Your task to perform on an android device: Clear the shopping cart on target.com. Search for usb-a to usb-b on target.com, select the first entry, add it to the cart, then select checkout. Image 0: 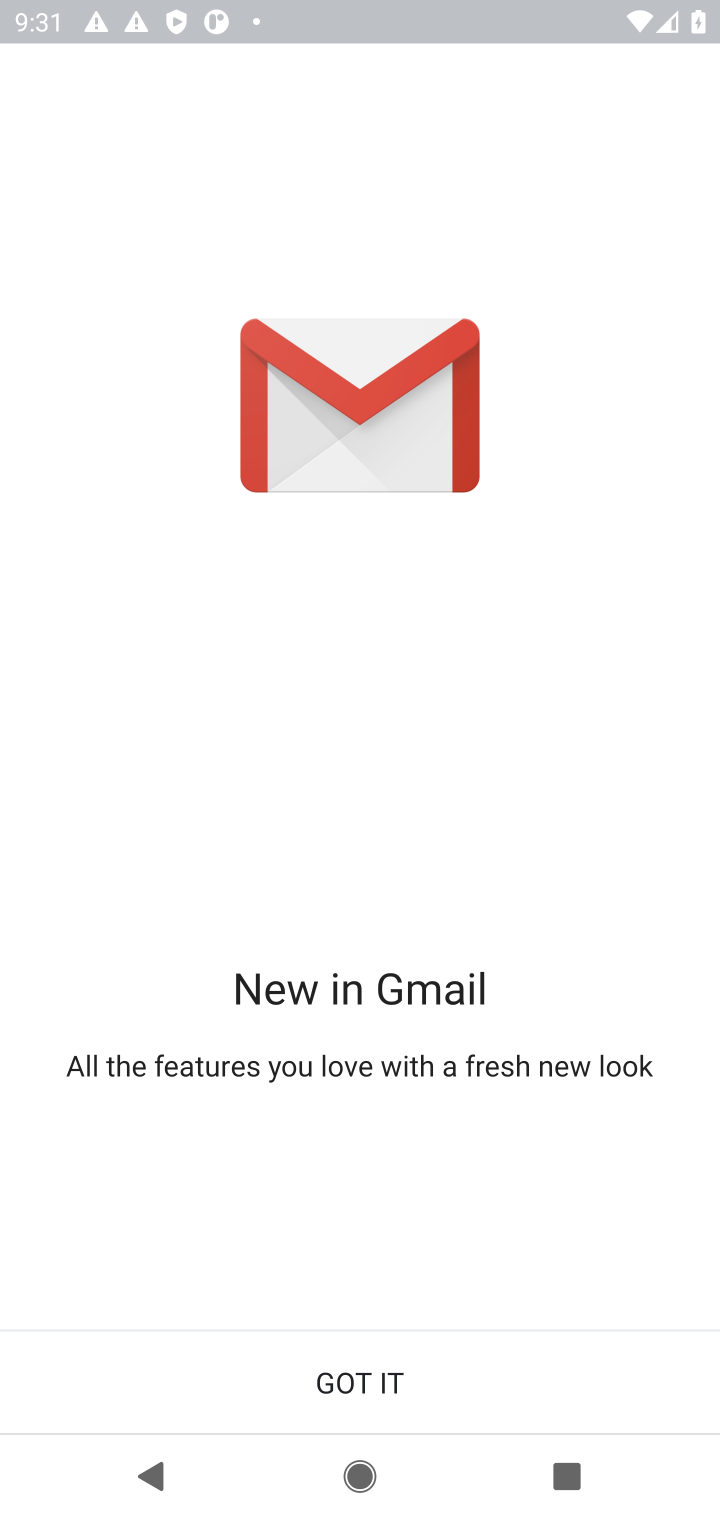
Step 0: press home button
Your task to perform on an android device: Clear the shopping cart on target.com. Search for usb-a to usb-b on target.com, select the first entry, add it to the cart, then select checkout. Image 1: 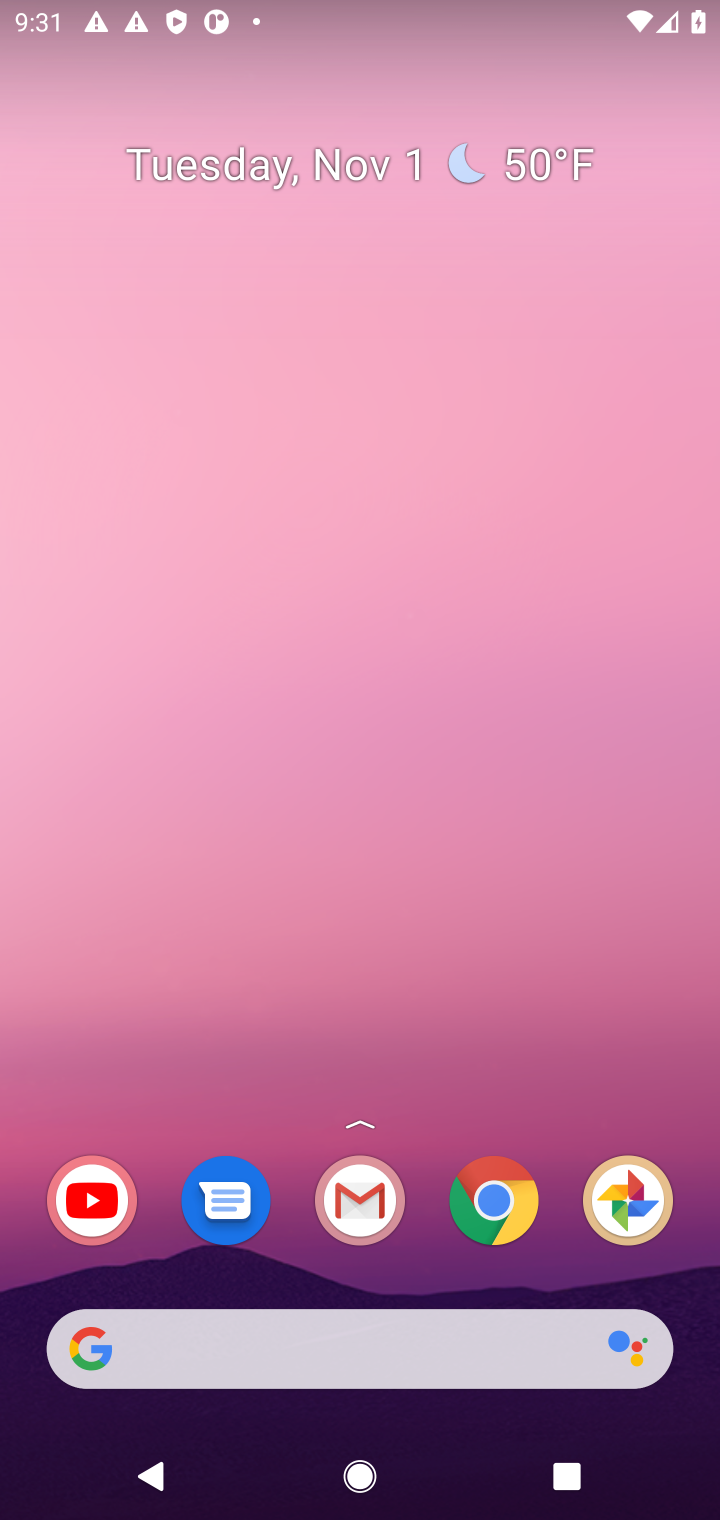
Step 1: click (369, 1335)
Your task to perform on an android device: Clear the shopping cart on target.com. Search for usb-a to usb-b on target.com, select the first entry, add it to the cart, then select checkout. Image 2: 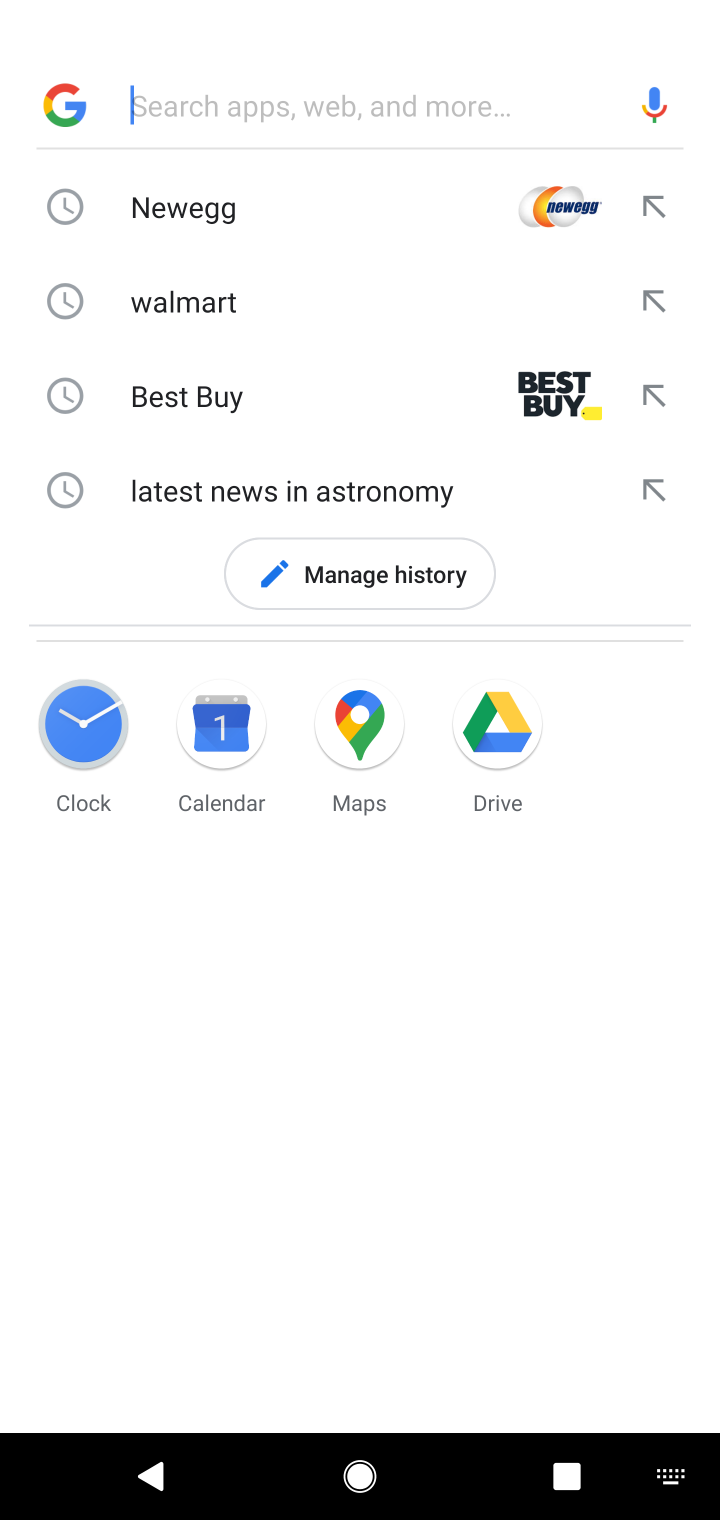
Step 2: type "target.com"
Your task to perform on an android device: Clear the shopping cart on target.com. Search for usb-a to usb-b on target.com, select the first entry, add it to the cart, then select checkout. Image 3: 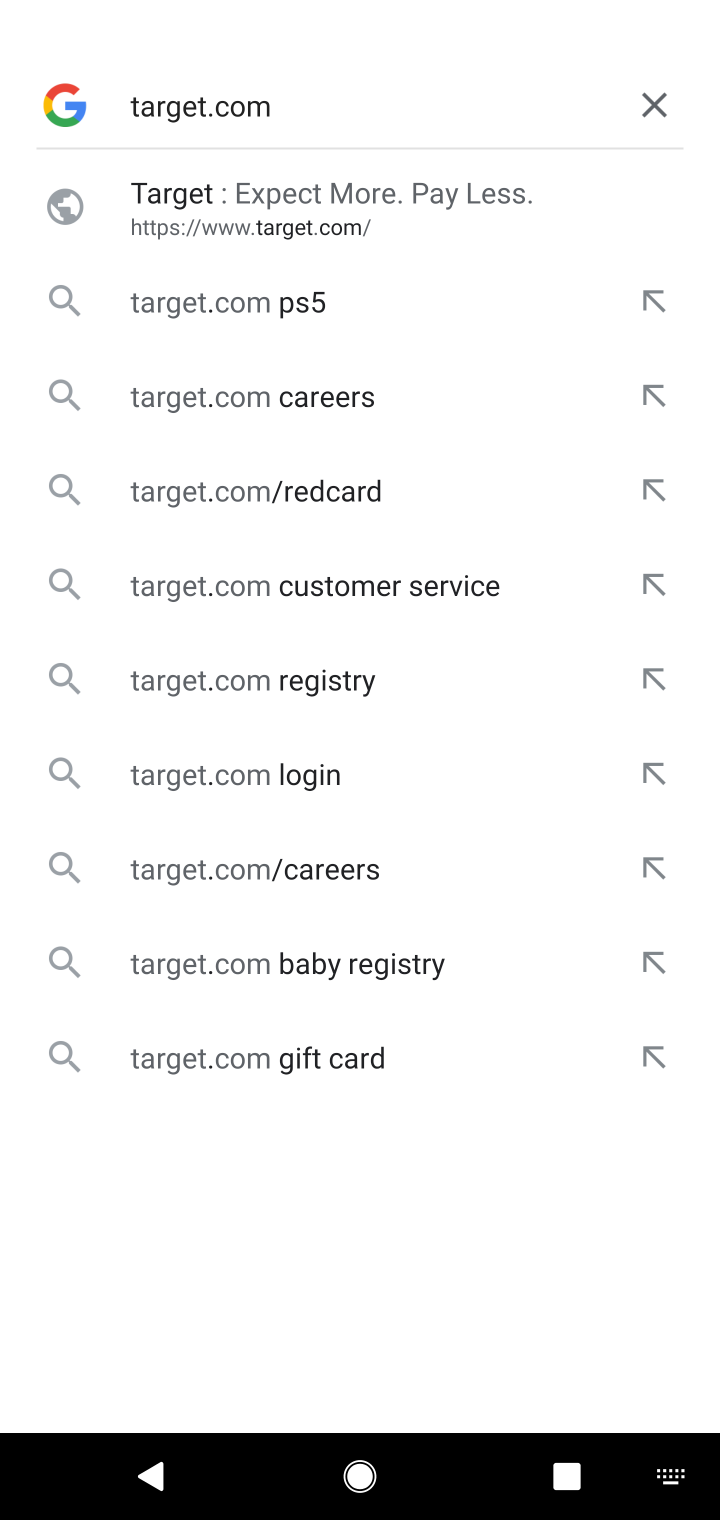
Step 3: type ""
Your task to perform on an android device: Clear the shopping cart on target.com. Search for usb-a to usb-b on target.com, select the first entry, add it to the cart, then select checkout. Image 4: 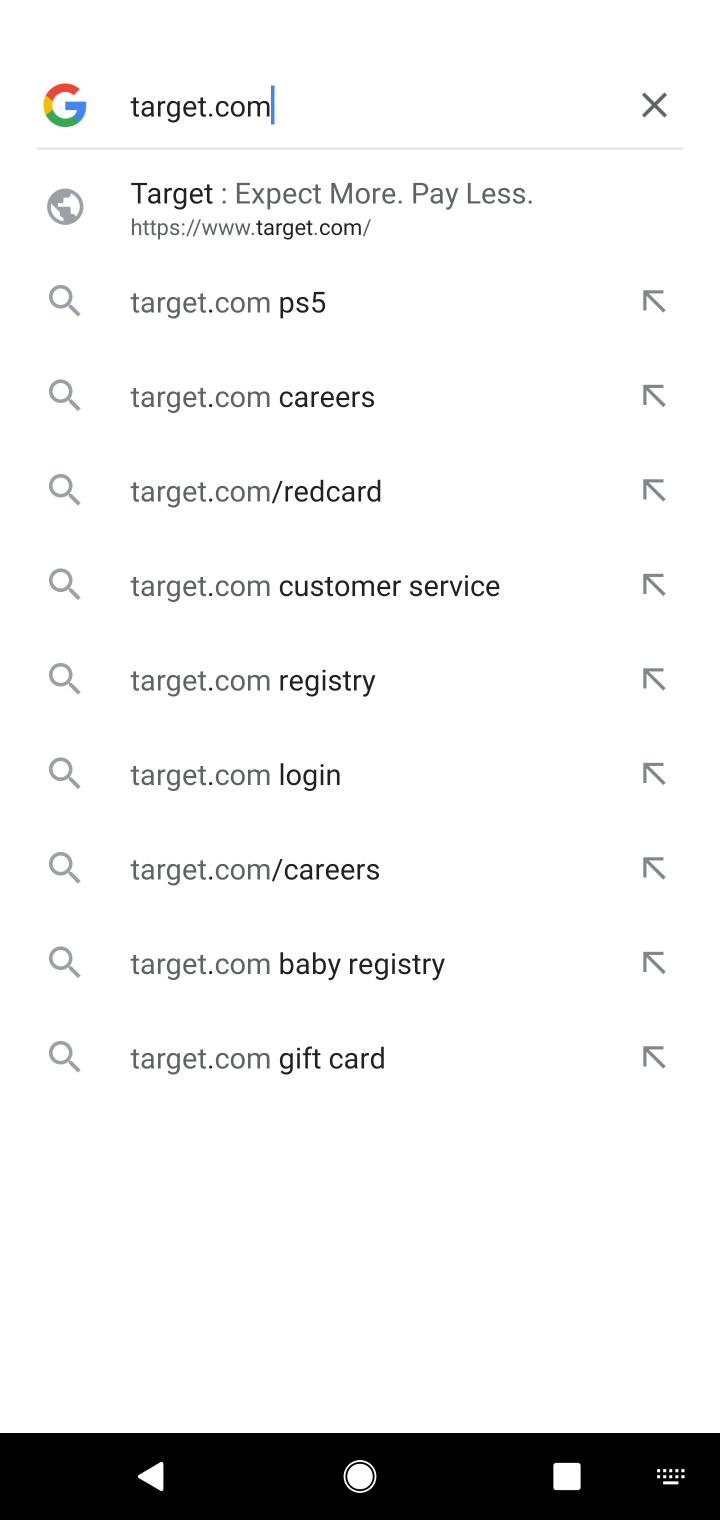
Step 4: click (221, 216)
Your task to perform on an android device: Clear the shopping cart on target.com. Search for usb-a to usb-b on target.com, select the first entry, add it to the cart, then select checkout. Image 5: 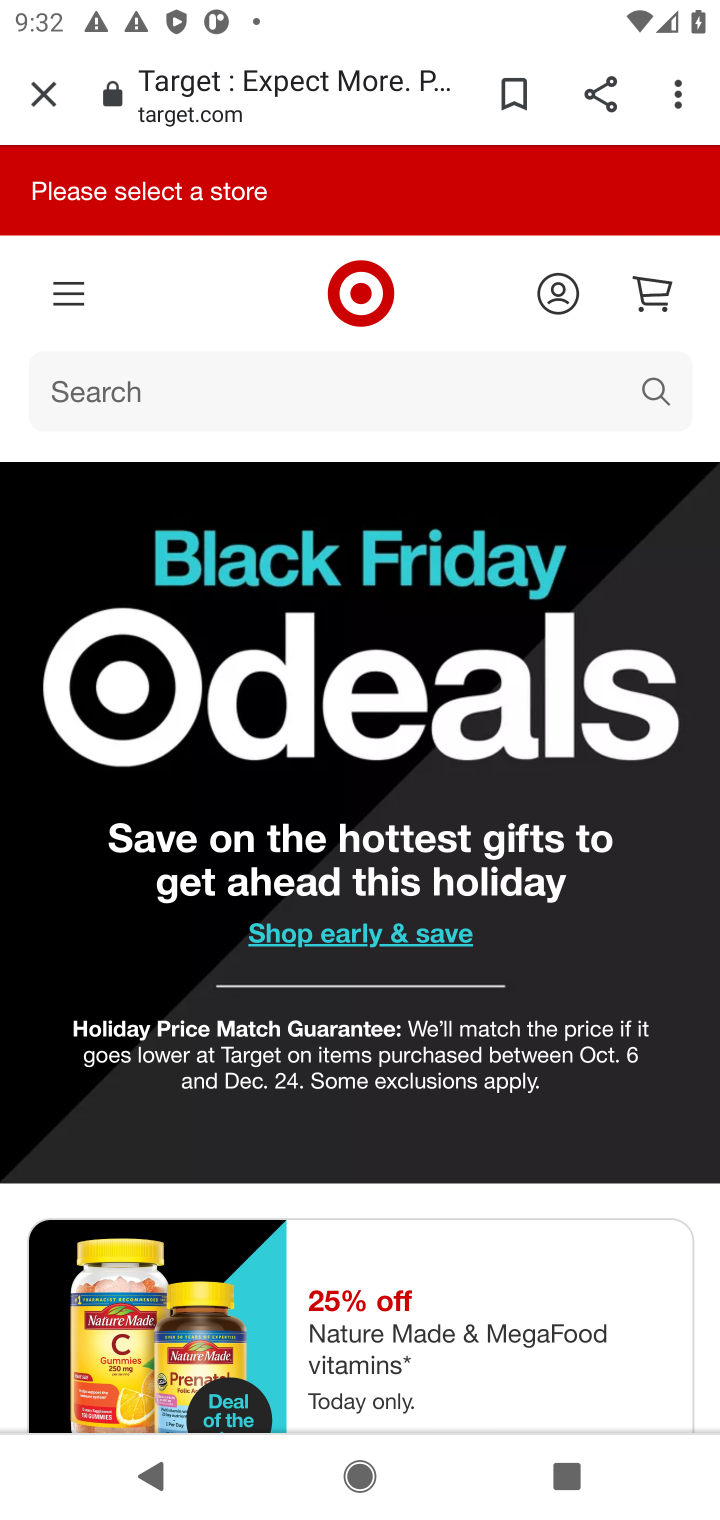
Step 5: click (312, 372)
Your task to perform on an android device: Clear the shopping cart on target.com. Search for usb-a to usb-b on target.com, select the first entry, add it to the cart, then select checkout. Image 6: 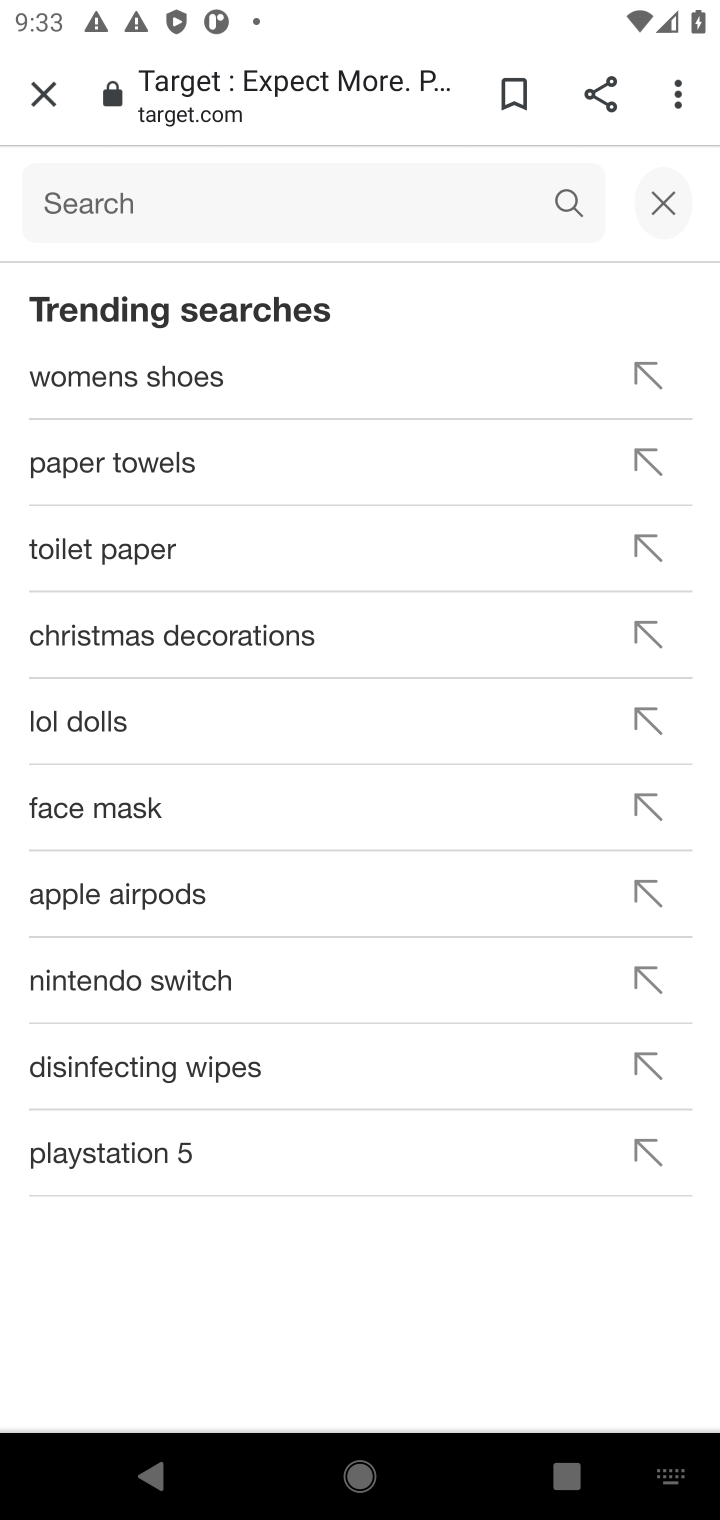
Step 6: type "usb-a to usb-b"
Your task to perform on an android device: Clear the shopping cart on target.com. Search for usb-a to usb-b on target.com, select the first entry, add it to the cart, then select checkout. Image 7: 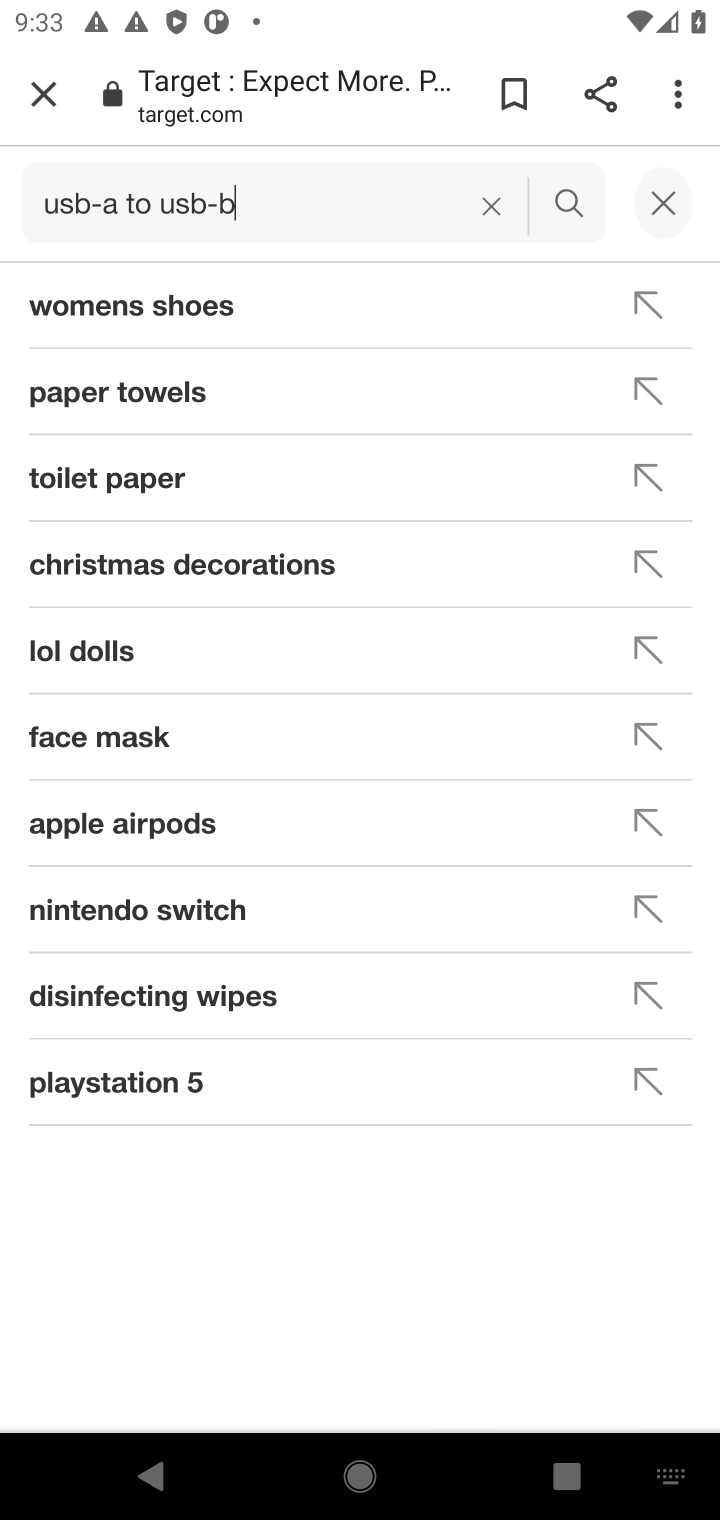
Step 7: type ""
Your task to perform on an android device: Clear the shopping cart on target.com. Search for usb-a to usb-b on target.com, select the first entry, add it to the cart, then select checkout. Image 8: 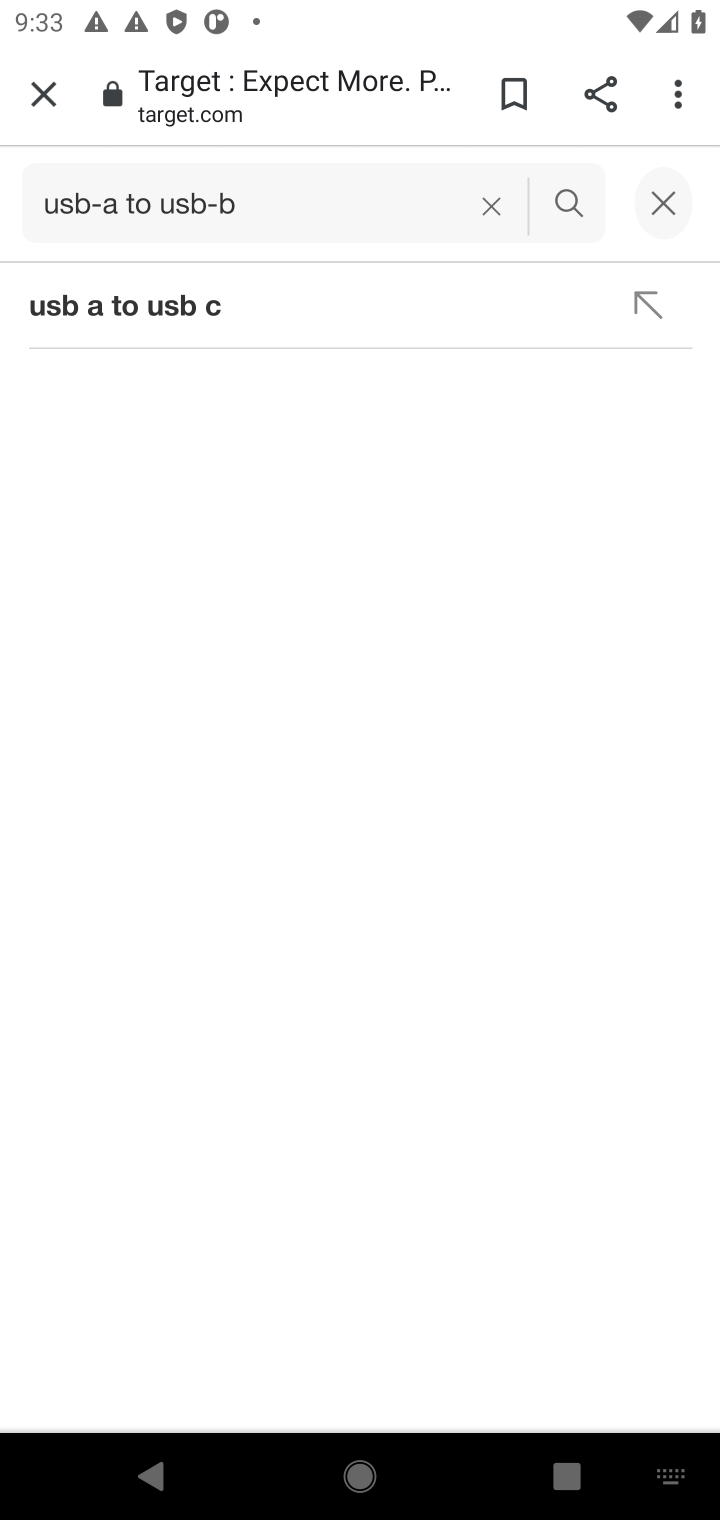
Step 8: click (567, 218)
Your task to perform on an android device: Clear the shopping cart on target.com. Search for usb-a to usb-b on target.com, select the first entry, add it to the cart, then select checkout. Image 9: 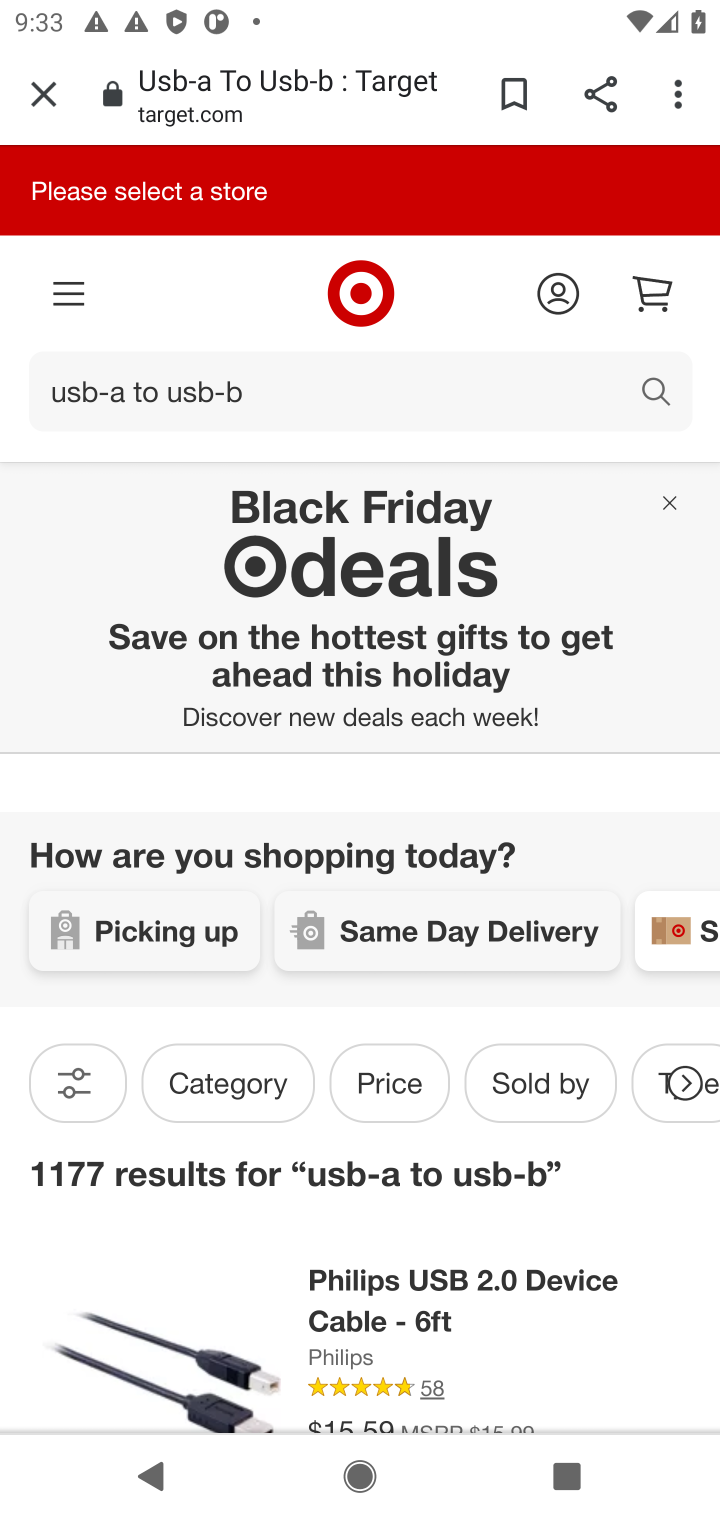
Step 9: click (467, 1291)
Your task to perform on an android device: Clear the shopping cart on target.com. Search for usb-a to usb-b on target.com, select the first entry, add it to the cart, then select checkout. Image 10: 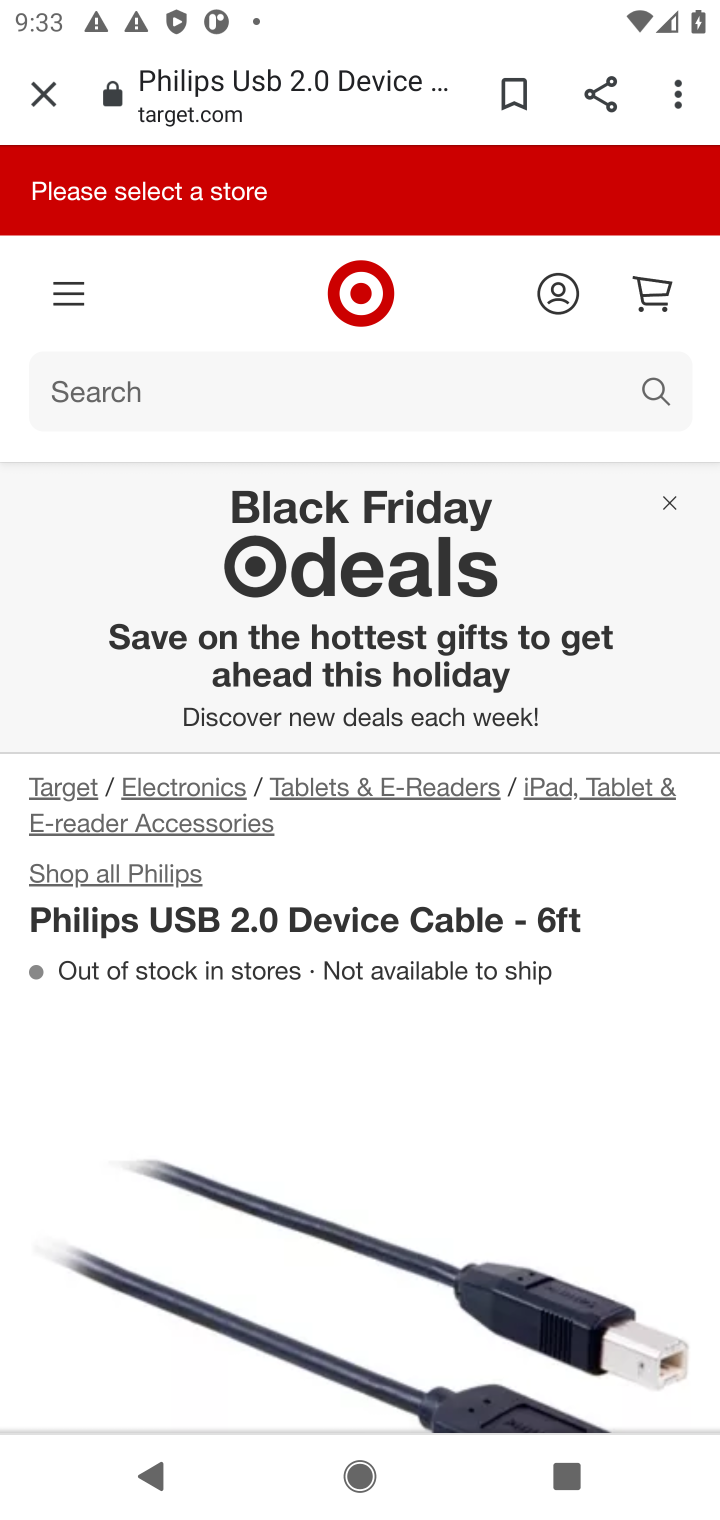
Step 10: drag from (456, 1084) to (491, 336)
Your task to perform on an android device: Clear the shopping cart on target.com. Search for usb-a to usb-b on target.com, select the first entry, add it to the cart, then select checkout. Image 11: 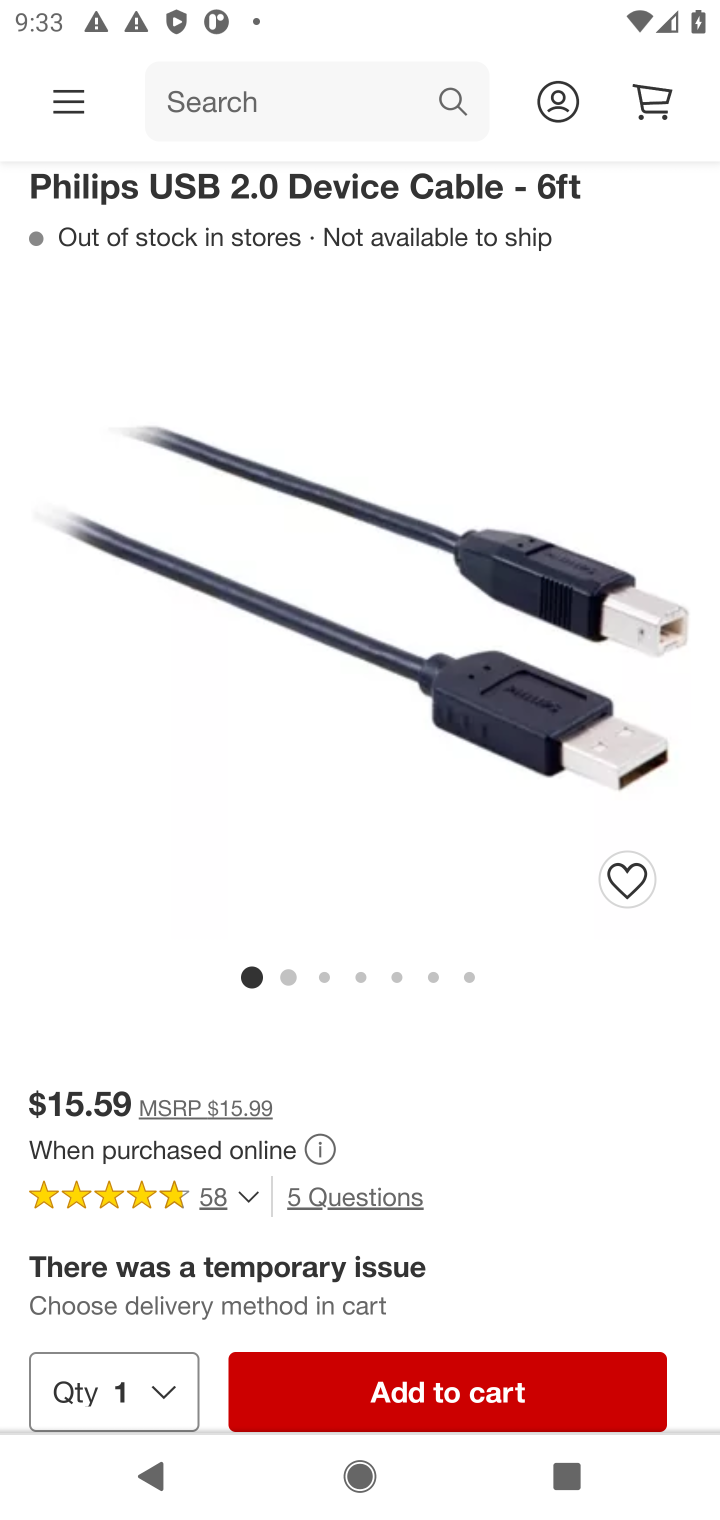
Step 11: click (482, 1369)
Your task to perform on an android device: Clear the shopping cart on target.com. Search for usb-a to usb-b on target.com, select the first entry, add it to the cart, then select checkout. Image 12: 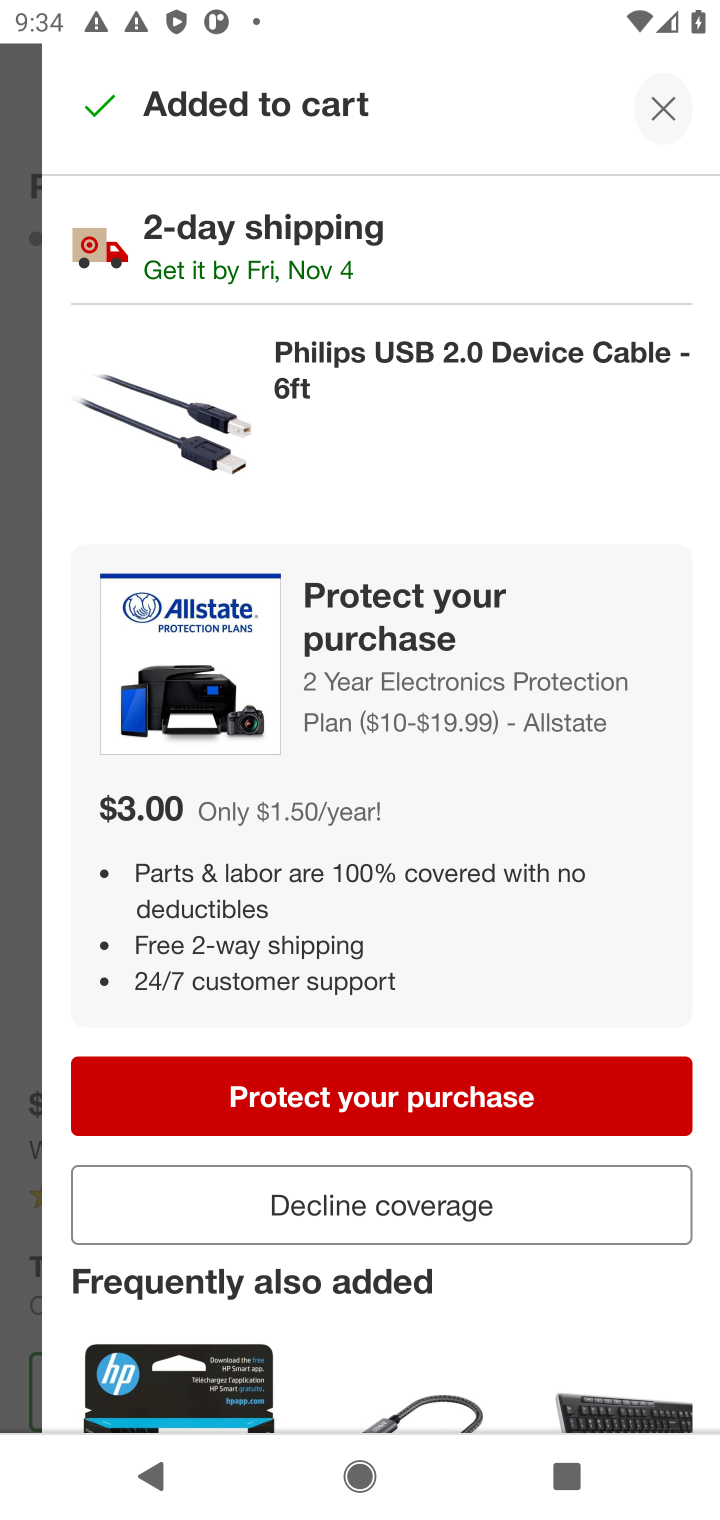
Step 12: click (454, 1181)
Your task to perform on an android device: Clear the shopping cart on target.com. Search for usb-a to usb-b on target.com, select the first entry, add it to the cart, then select checkout. Image 13: 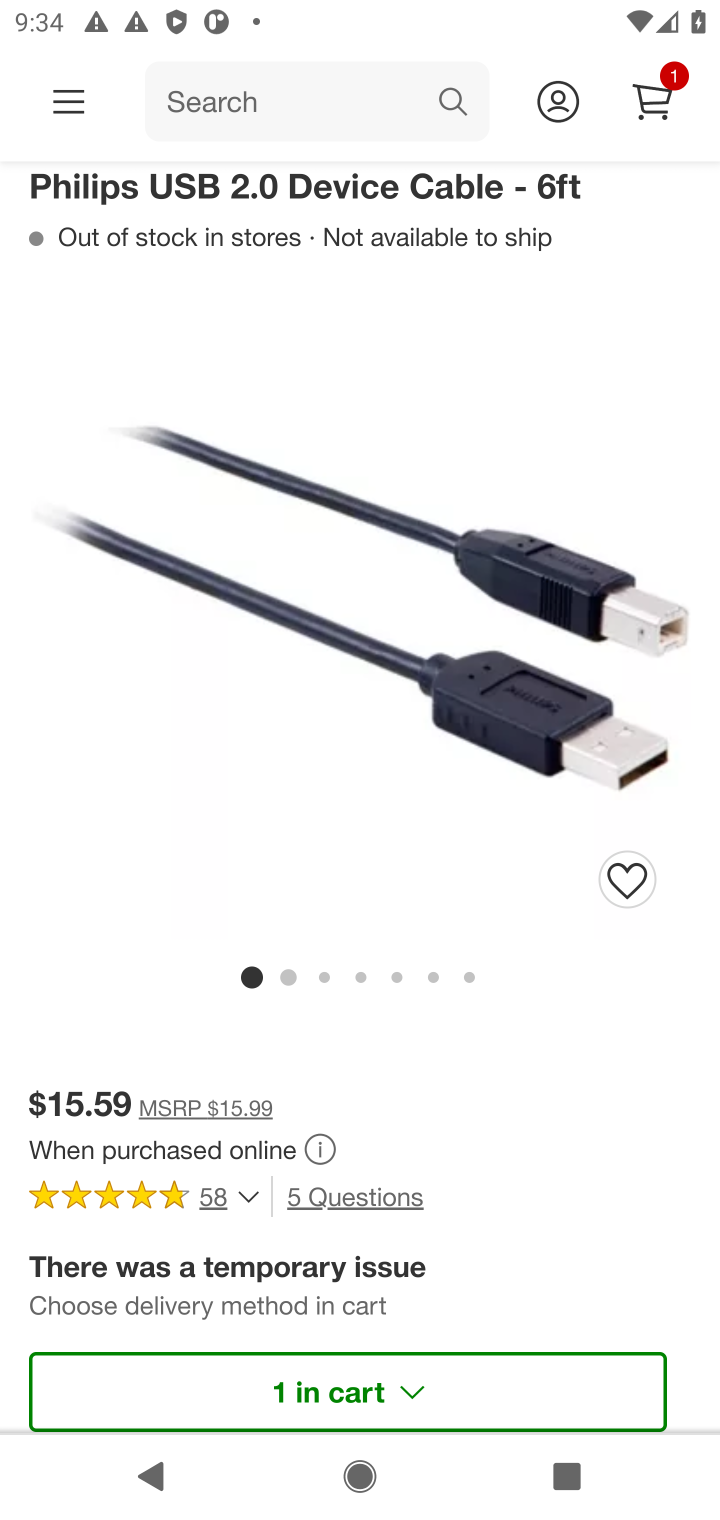
Step 13: click (662, 73)
Your task to perform on an android device: Clear the shopping cart on target.com. Search for usb-a to usb-b on target.com, select the first entry, add it to the cart, then select checkout. Image 14: 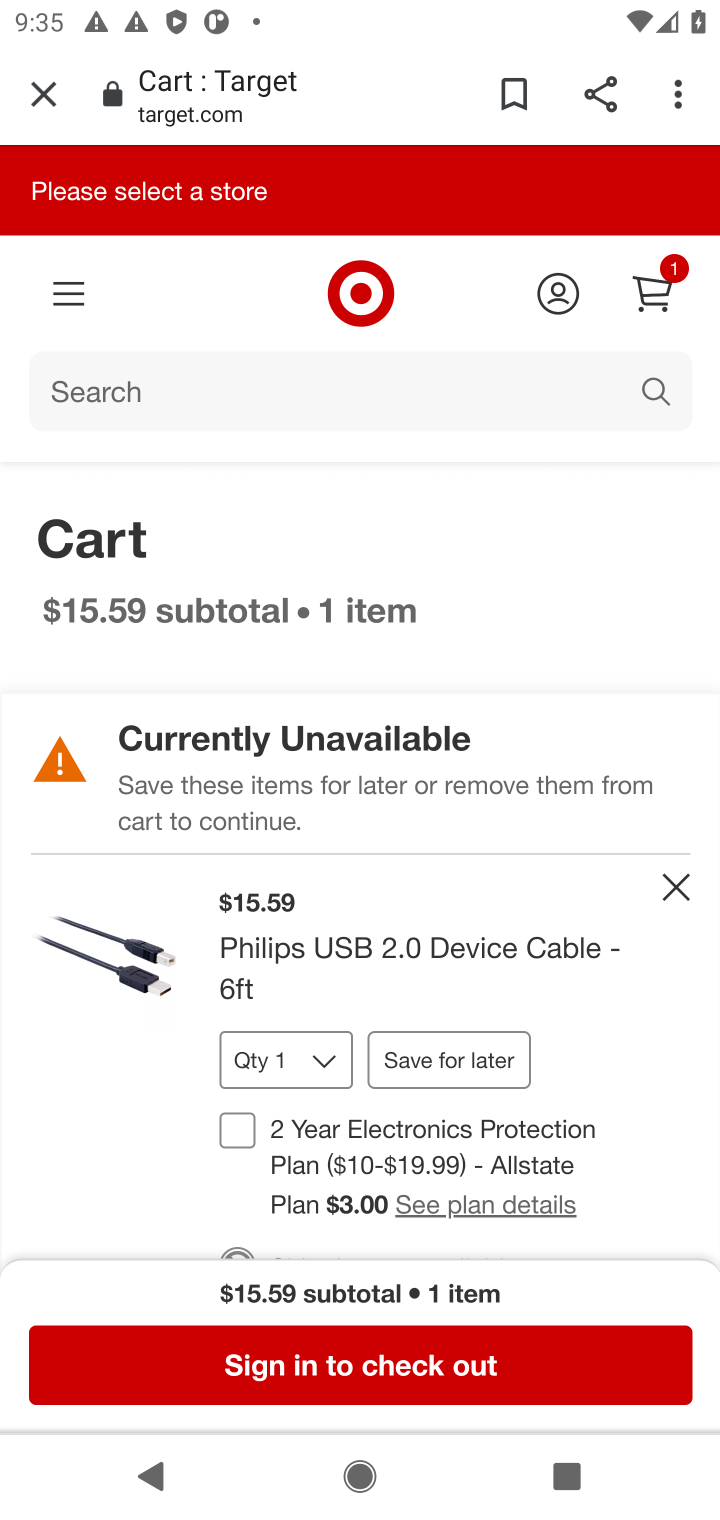
Step 14: click (615, 420)
Your task to perform on an android device: Clear the shopping cart on target.com. Search for usb-a to usb-b on target.com, select the first entry, add it to the cart, then select checkout. Image 15: 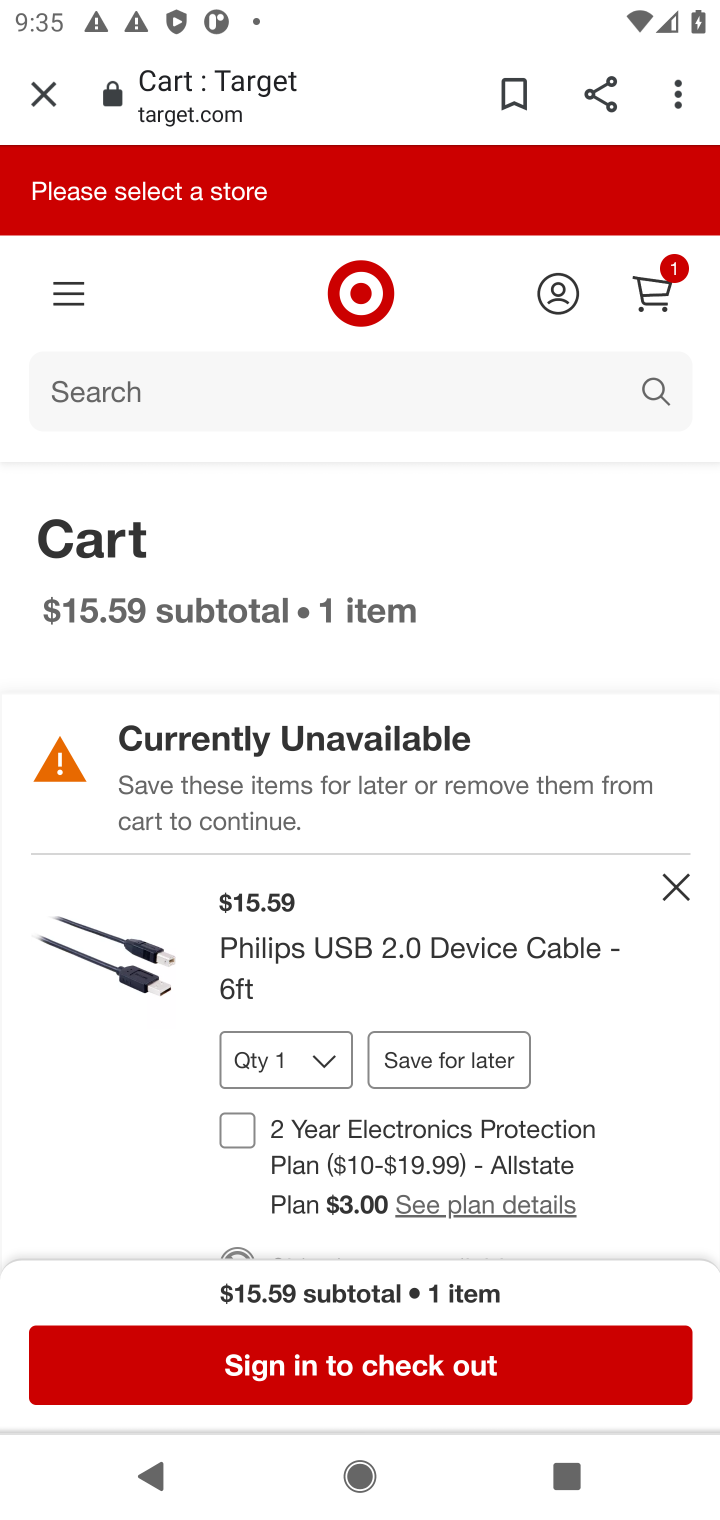
Step 15: click (494, 660)
Your task to perform on an android device: Clear the shopping cart on target.com. Search for usb-a to usb-b on target.com, select the first entry, add it to the cart, then select checkout. Image 16: 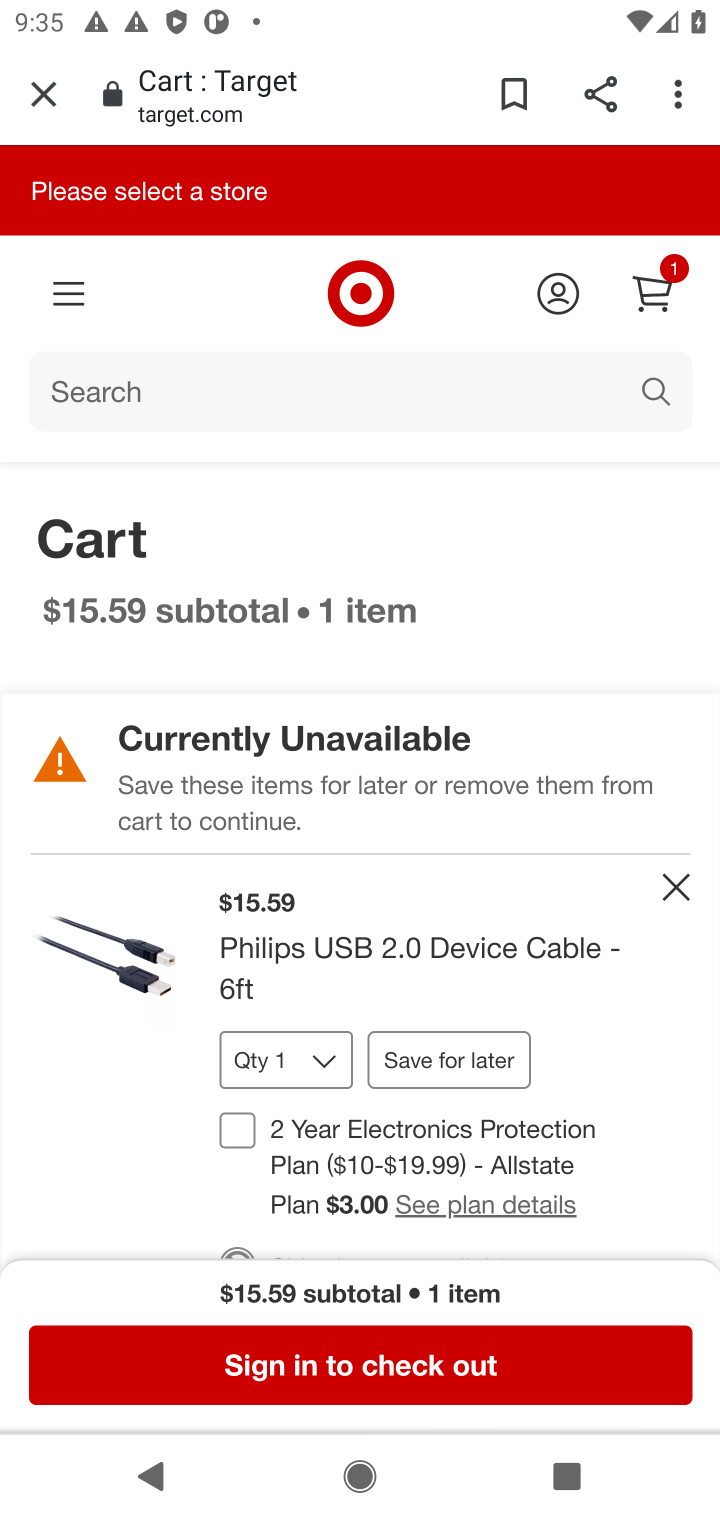
Step 16: drag from (130, 1114) to (289, 592)
Your task to perform on an android device: Clear the shopping cart on target.com. Search for usb-a to usb-b on target.com, select the first entry, add it to the cart, then select checkout. Image 17: 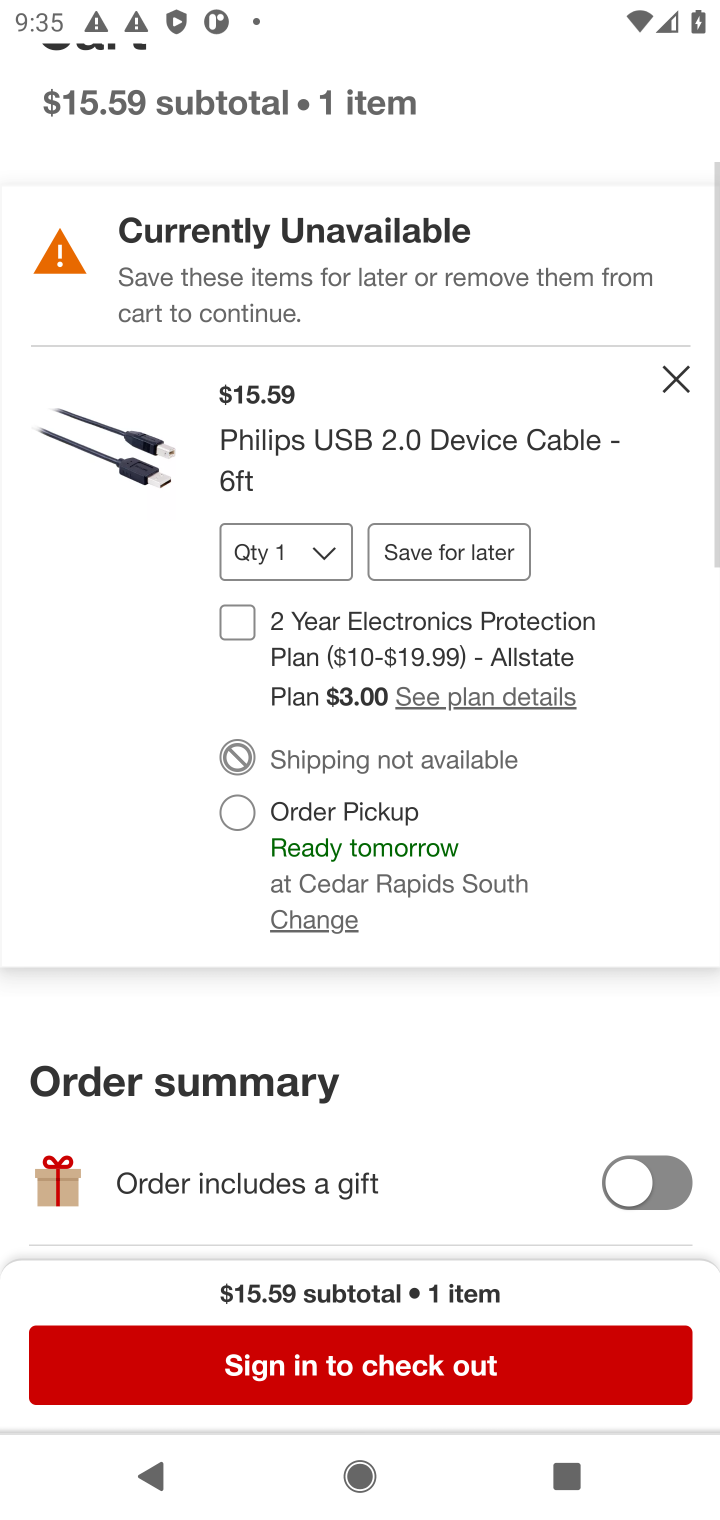
Step 17: drag from (450, 706) to (462, 581)
Your task to perform on an android device: Clear the shopping cart on target.com. Search for usb-a to usb-b on target.com, select the first entry, add it to the cart, then select checkout. Image 18: 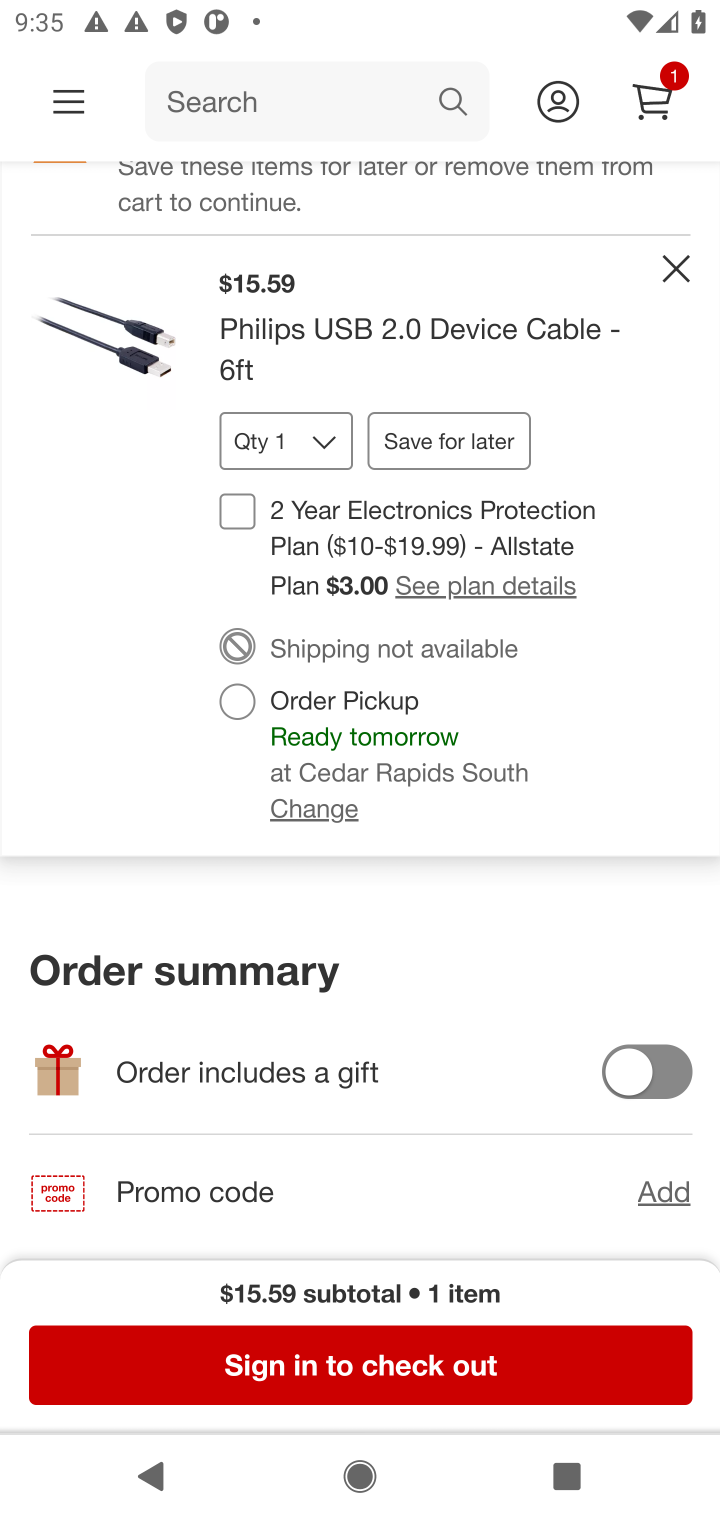
Step 18: click (438, 1363)
Your task to perform on an android device: Clear the shopping cart on target.com. Search for usb-a to usb-b on target.com, select the first entry, add it to the cart, then select checkout. Image 19: 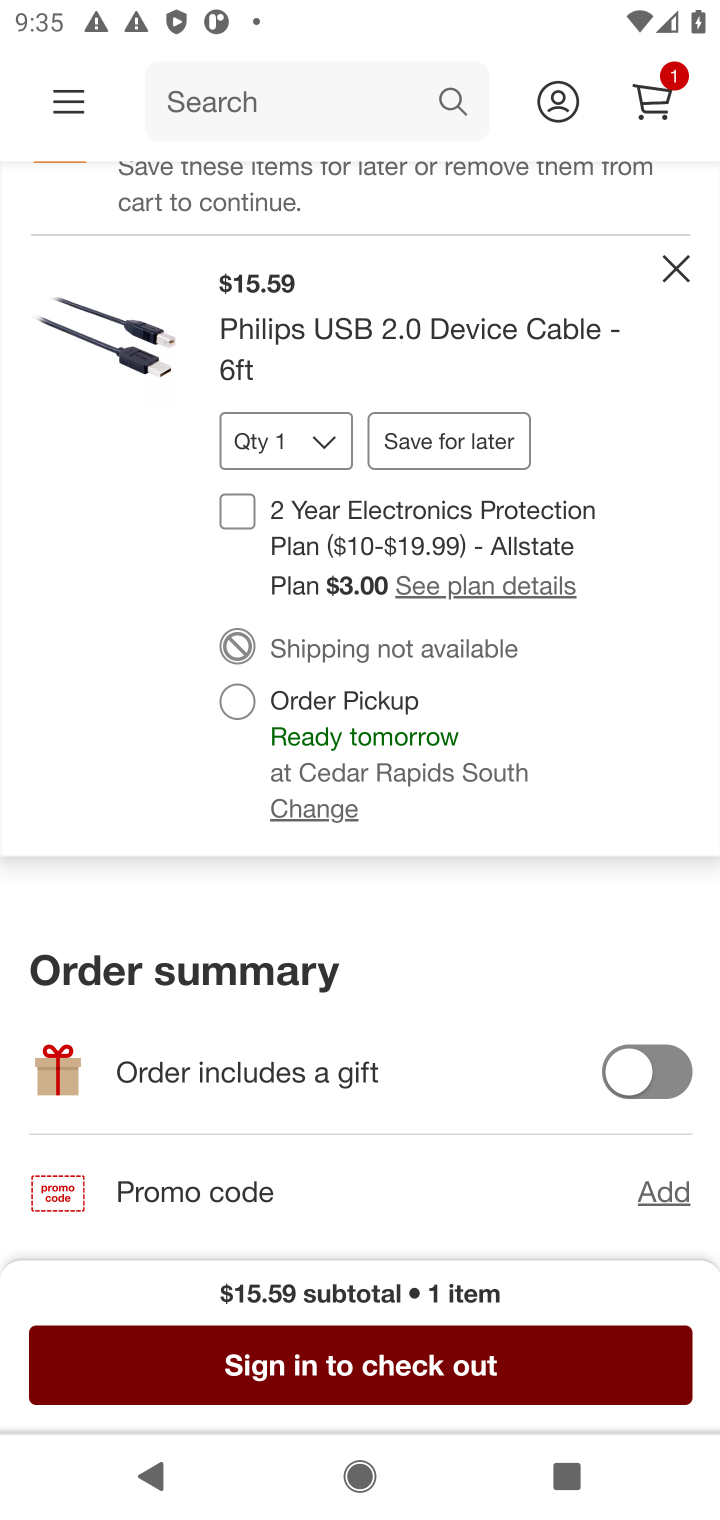
Step 19: task complete